Your task to perform on an android device: Search for "razer thresher" on target.com, select the first entry, add it to the cart, then select checkout. Image 0: 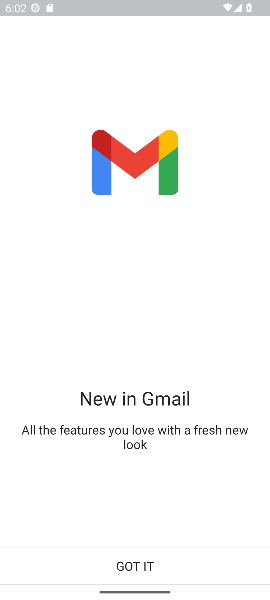
Step 0: press home button
Your task to perform on an android device: Search for "razer thresher" on target.com, select the first entry, add it to the cart, then select checkout. Image 1: 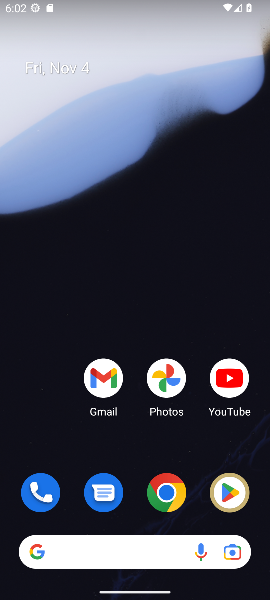
Step 1: drag from (135, 454) to (158, 24)
Your task to perform on an android device: Search for "razer thresher" on target.com, select the first entry, add it to the cart, then select checkout. Image 2: 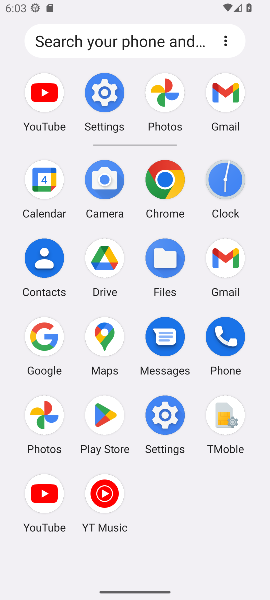
Step 2: click (164, 185)
Your task to perform on an android device: Search for "razer thresher" on target.com, select the first entry, add it to the cart, then select checkout. Image 3: 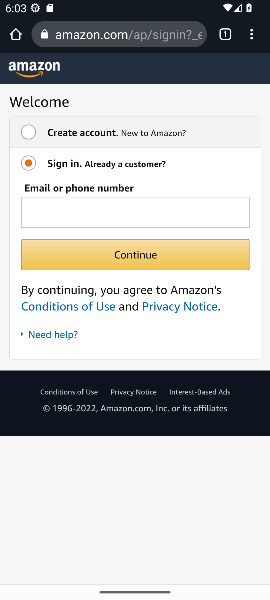
Step 3: click (158, 29)
Your task to perform on an android device: Search for "razer thresher" on target.com, select the first entry, add it to the cart, then select checkout. Image 4: 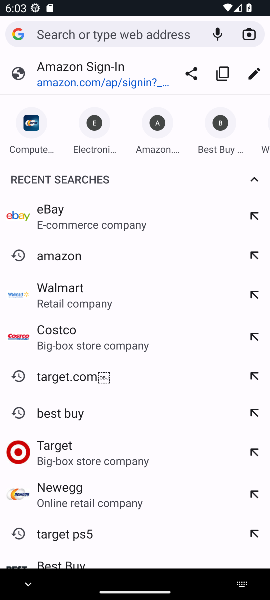
Step 4: type "target.com"
Your task to perform on an android device: Search for "razer thresher" on target.com, select the first entry, add it to the cart, then select checkout. Image 5: 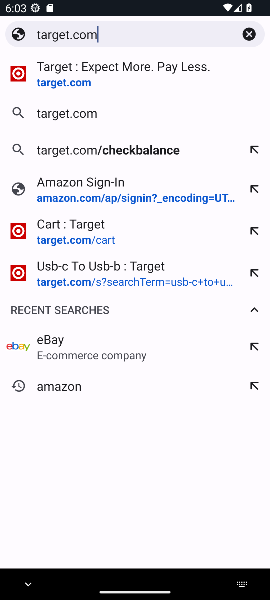
Step 5: press enter
Your task to perform on an android device: Search for "razer thresher" on target.com, select the first entry, add it to the cart, then select checkout. Image 6: 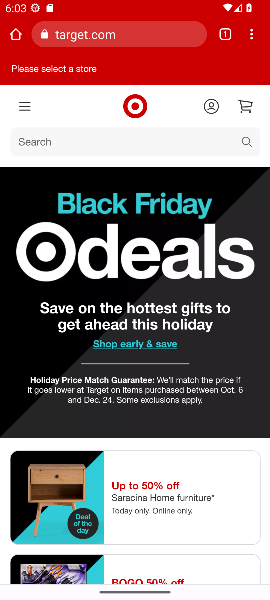
Step 6: click (247, 146)
Your task to perform on an android device: Search for "razer thresher" on target.com, select the first entry, add it to the cart, then select checkout. Image 7: 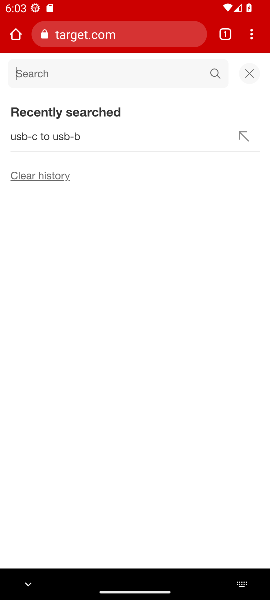
Step 7: type "razer thresher"
Your task to perform on an android device: Search for "razer thresher" on target.com, select the first entry, add it to the cart, then select checkout. Image 8: 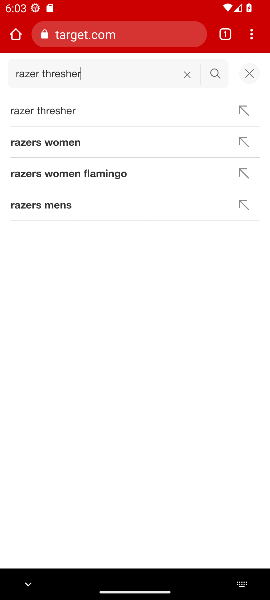
Step 8: press enter
Your task to perform on an android device: Search for "razer thresher" on target.com, select the first entry, add it to the cart, then select checkout. Image 9: 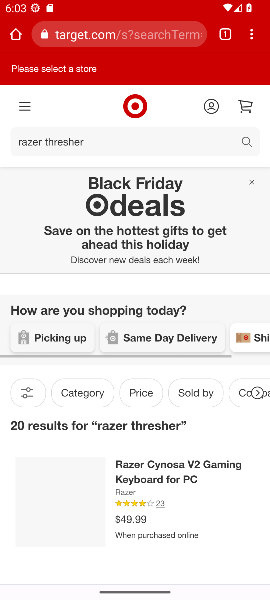
Step 9: task complete